Your task to perform on an android device: check data usage Image 0: 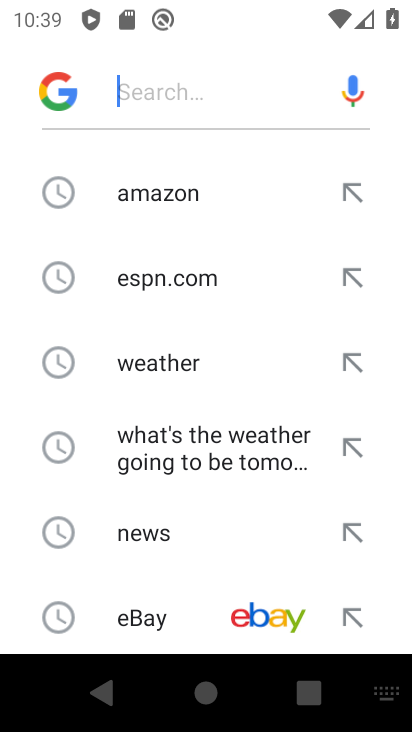
Step 0: press home button
Your task to perform on an android device: check data usage Image 1: 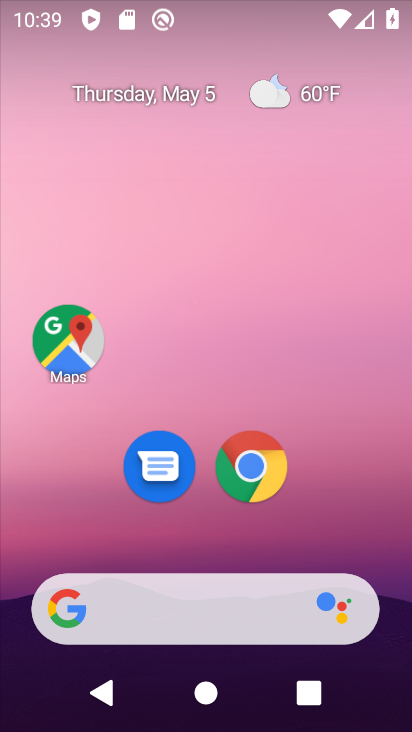
Step 1: drag from (170, 569) to (289, 156)
Your task to perform on an android device: check data usage Image 2: 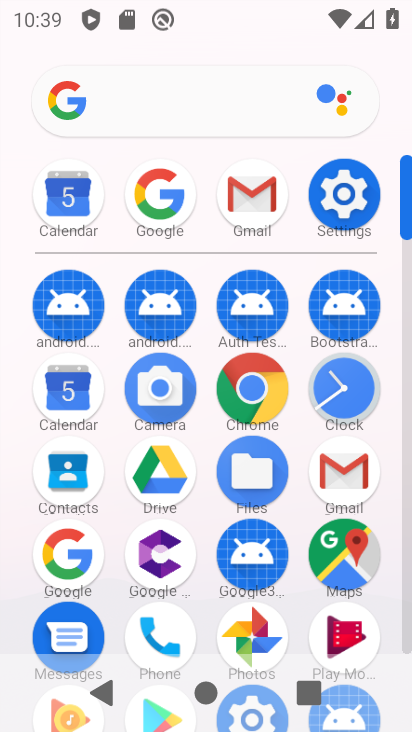
Step 2: click (341, 191)
Your task to perform on an android device: check data usage Image 3: 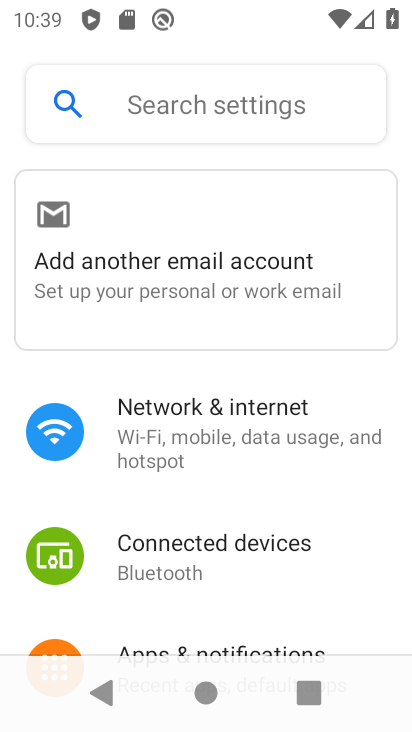
Step 3: click (162, 427)
Your task to perform on an android device: check data usage Image 4: 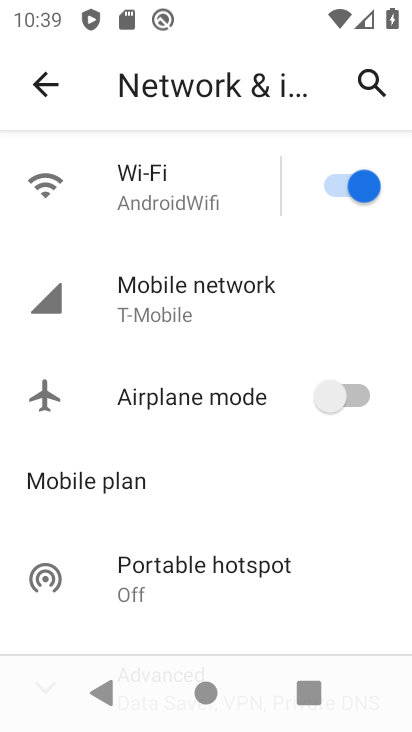
Step 4: drag from (149, 488) to (172, 310)
Your task to perform on an android device: check data usage Image 5: 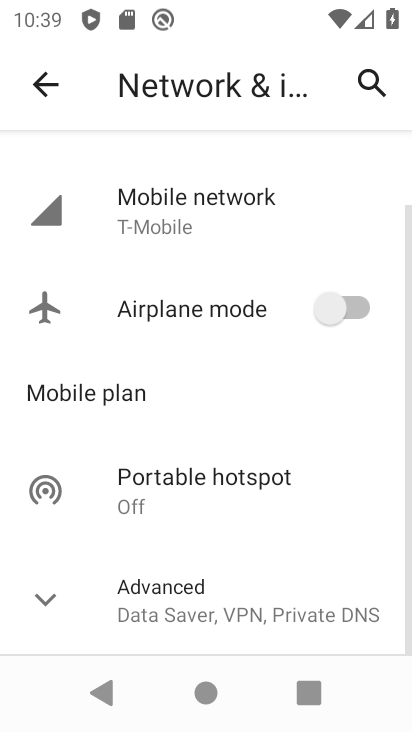
Step 5: drag from (209, 536) to (209, 375)
Your task to perform on an android device: check data usage Image 6: 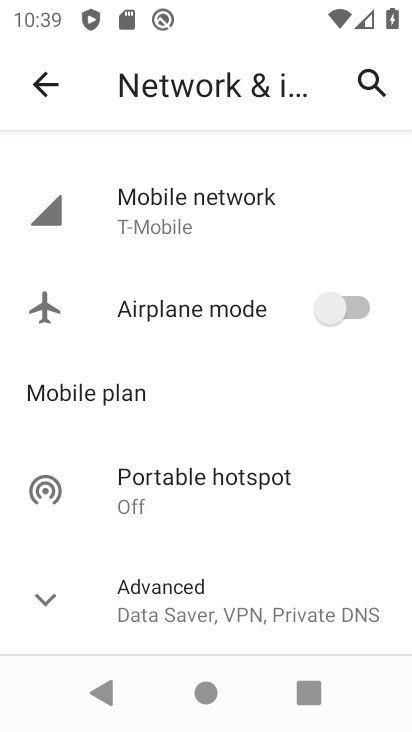
Step 6: drag from (205, 374) to (211, 614)
Your task to perform on an android device: check data usage Image 7: 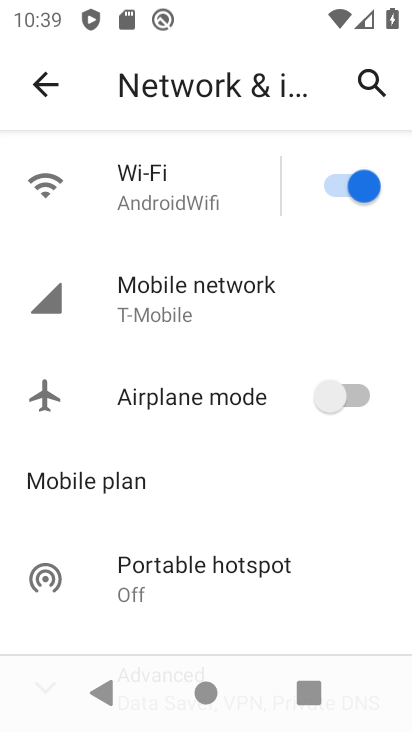
Step 7: click (193, 286)
Your task to perform on an android device: check data usage Image 8: 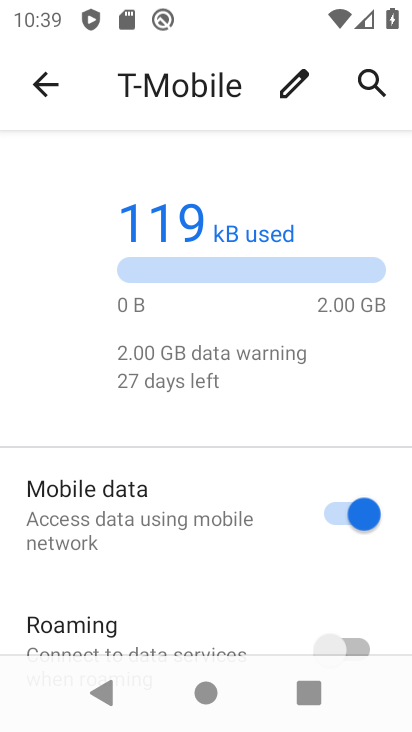
Step 8: task complete